Your task to perform on an android device: toggle wifi Image 0: 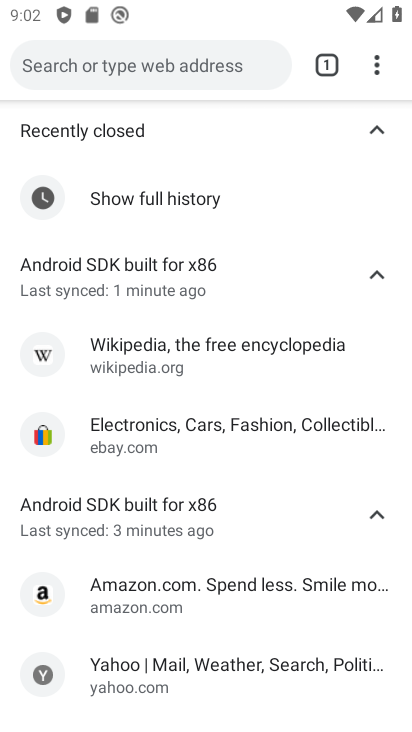
Step 0: press home button
Your task to perform on an android device: toggle wifi Image 1: 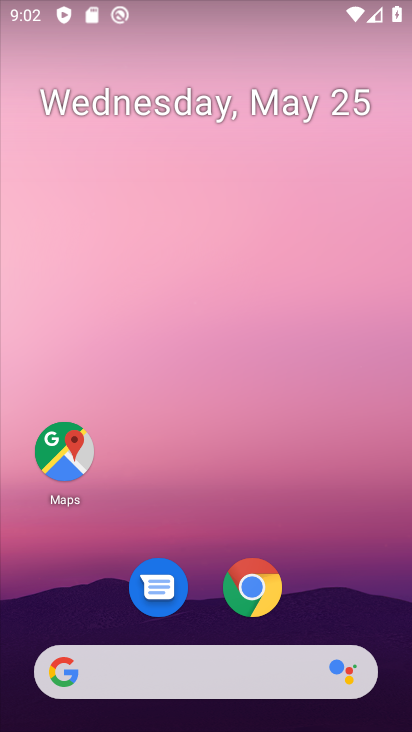
Step 1: drag from (202, 613) to (248, 4)
Your task to perform on an android device: toggle wifi Image 2: 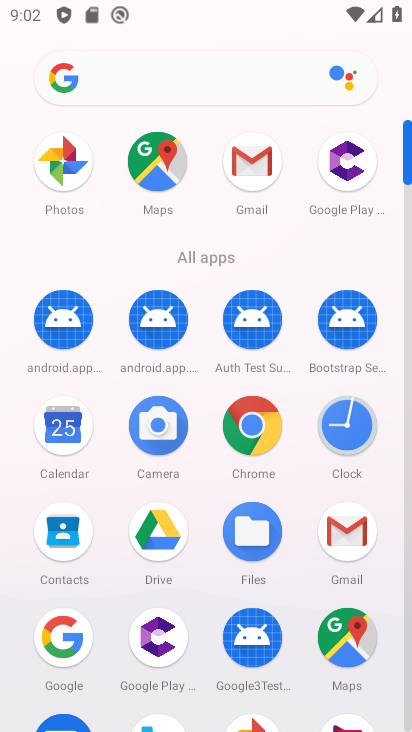
Step 2: drag from (201, 489) to (209, 108)
Your task to perform on an android device: toggle wifi Image 3: 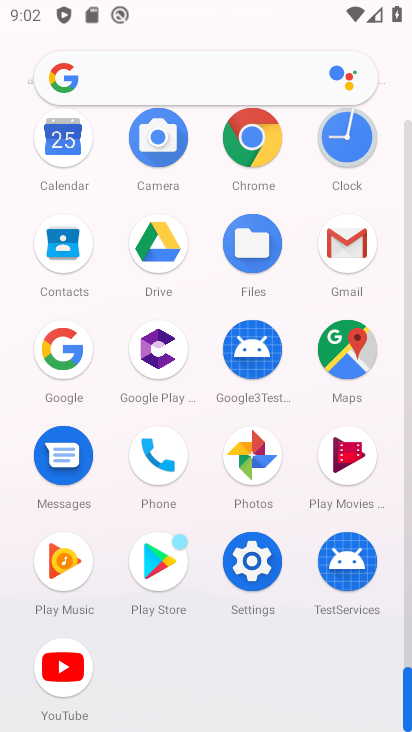
Step 3: click (251, 580)
Your task to perform on an android device: toggle wifi Image 4: 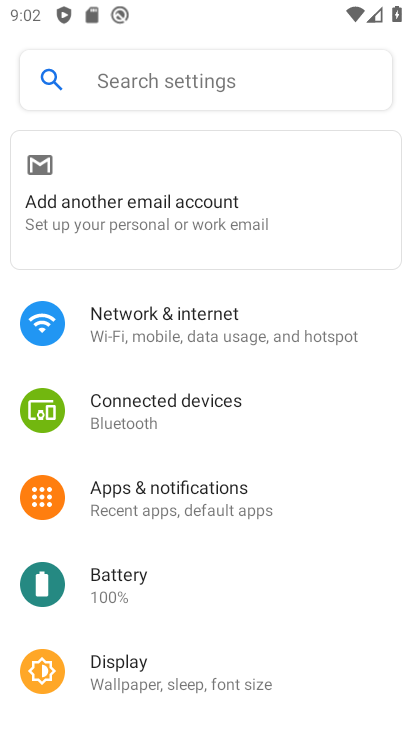
Step 4: click (197, 341)
Your task to perform on an android device: toggle wifi Image 5: 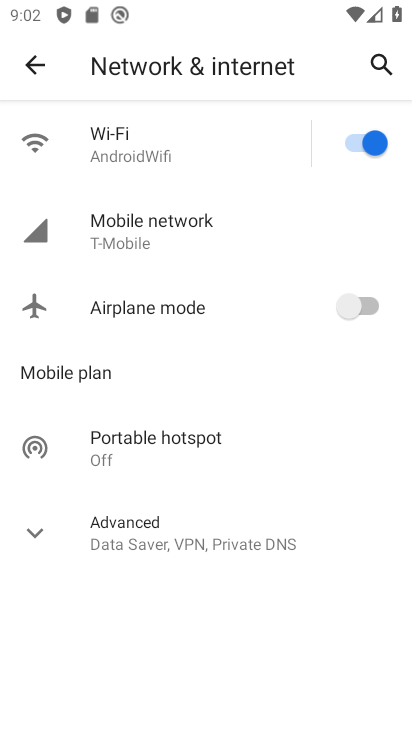
Step 5: click (355, 143)
Your task to perform on an android device: toggle wifi Image 6: 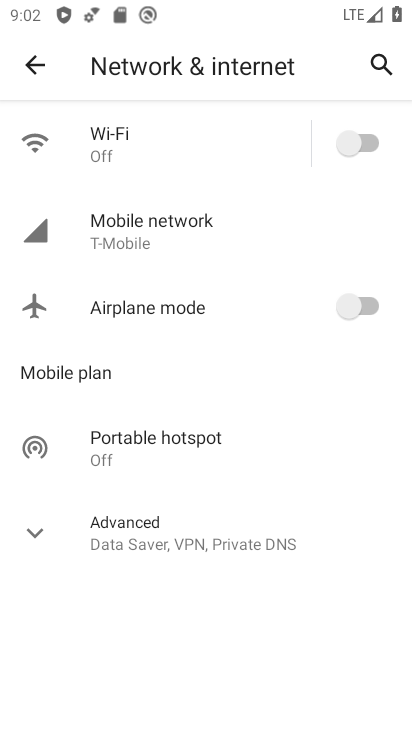
Step 6: task complete